Your task to perform on an android device: Open ESPN.com Image 0: 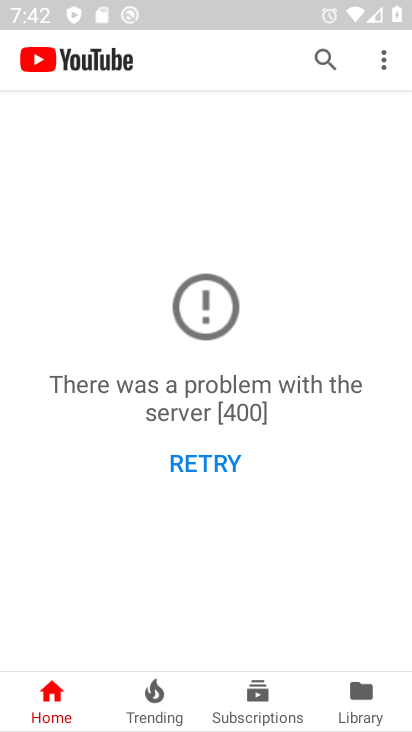
Step 0: press home button
Your task to perform on an android device: Open ESPN.com Image 1: 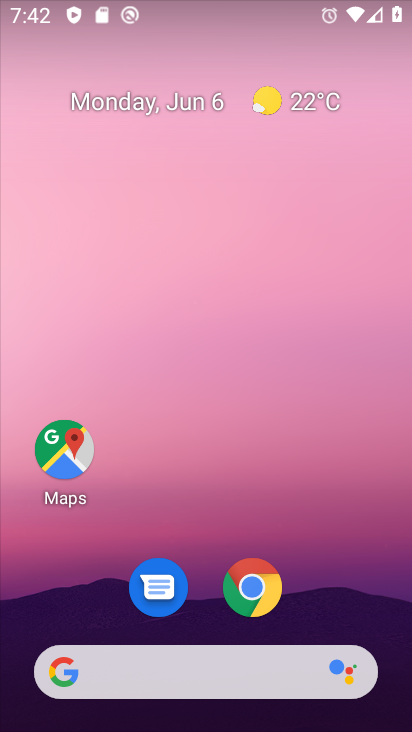
Step 1: drag from (327, 595) to (314, 52)
Your task to perform on an android device: Open ESPN.com Image 2: 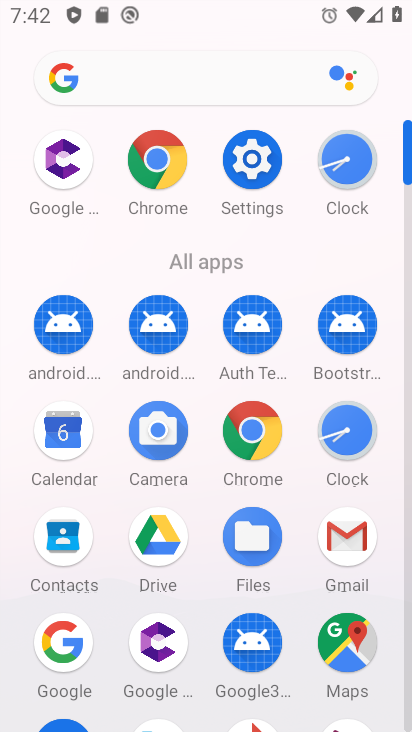
Step 2: click (67, 642)
Your task to perform on an android device: Open ESPN.com Image 3: 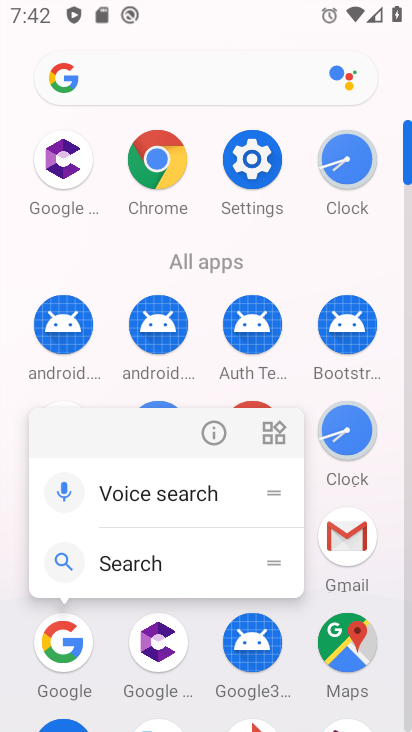
Step 3: click (73, 637)
Your task to perform on an android device: Open ESPN.com Image 4: 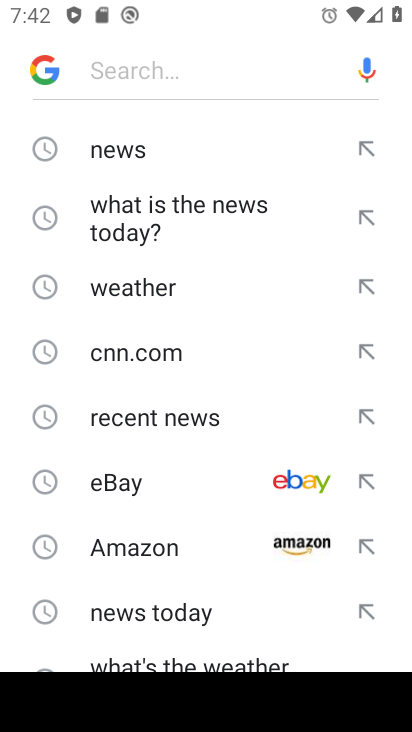
Step 4: type "espn.com"
Your task to perform on an android device: Open ESPN.com Image 5: 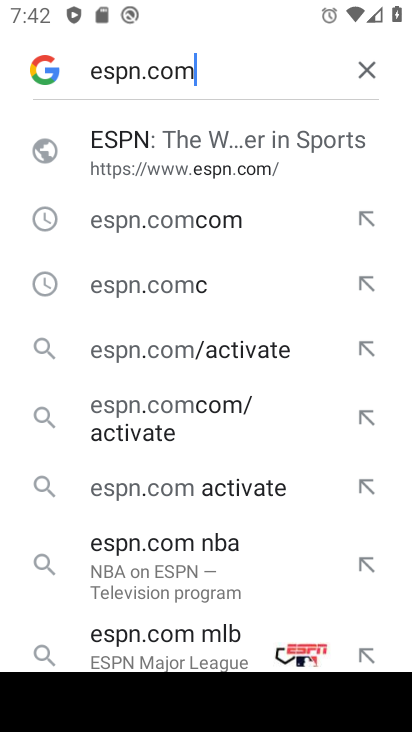
Step 5: click (195, 142)
Your task to perform on an android device: Open ESPN.com Image 6: 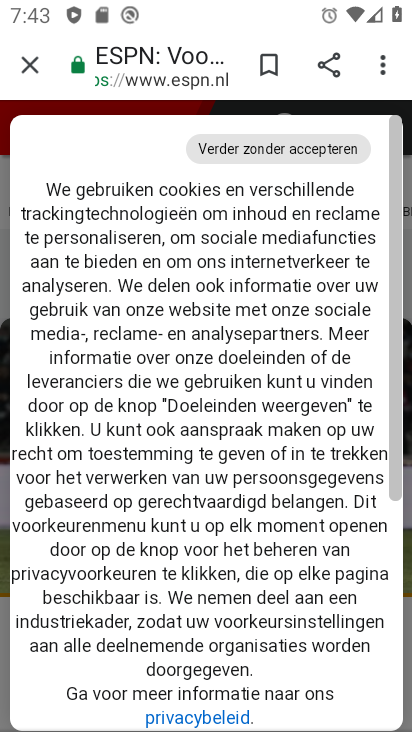
Step 6: task complete